Your task to perform on an android device: Open the map Image 0: 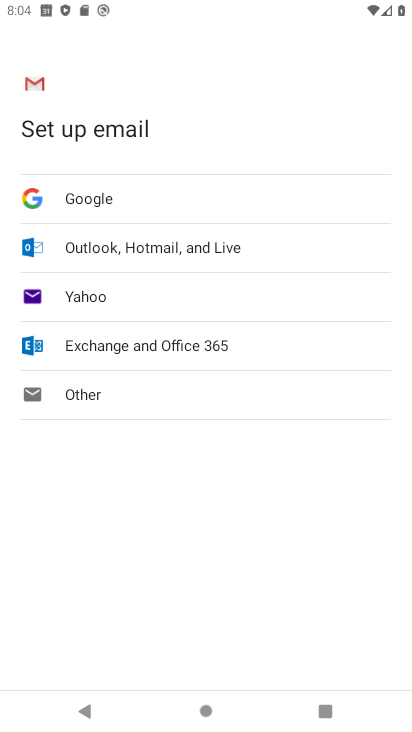
Step 0: press home button
Your task to perform on an android device: Open the map Image 1: 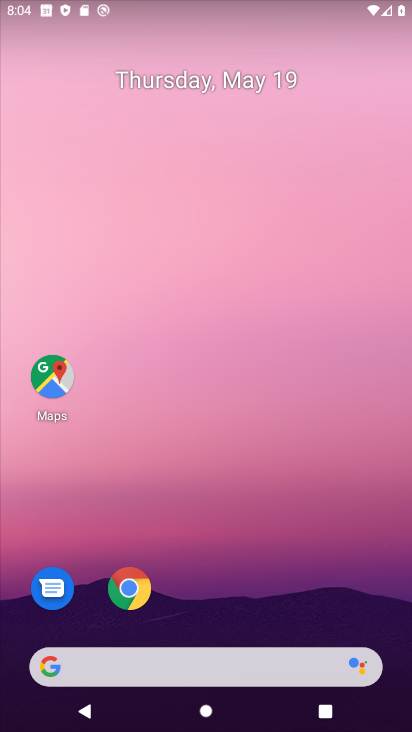
Step 1: drag from (232, 727) to (239, 74)
Your task to perform on an android device: Open the map Image 2: 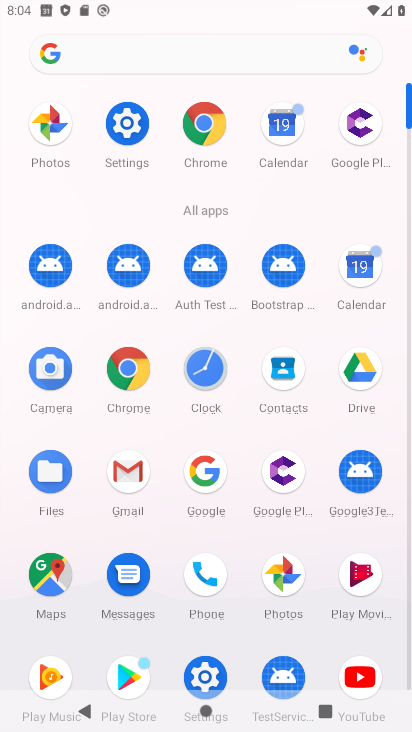
Step 2: click (50, 570)
Your task to perform on an android device: Open the map Image 3: 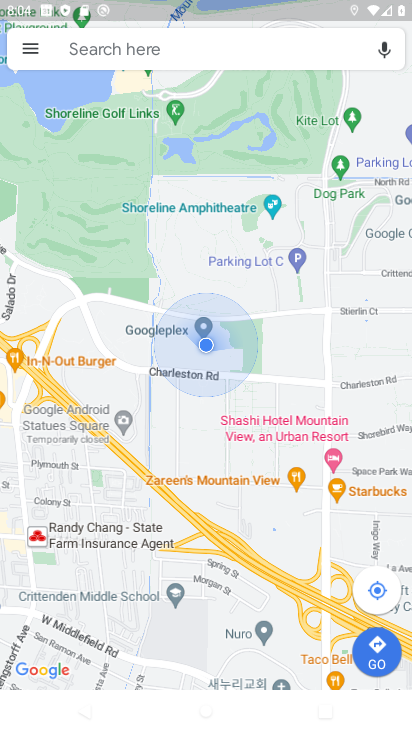
Step 3: task complete